Your task to perform on an android device: turn off data saver in the chrome app Image 0: 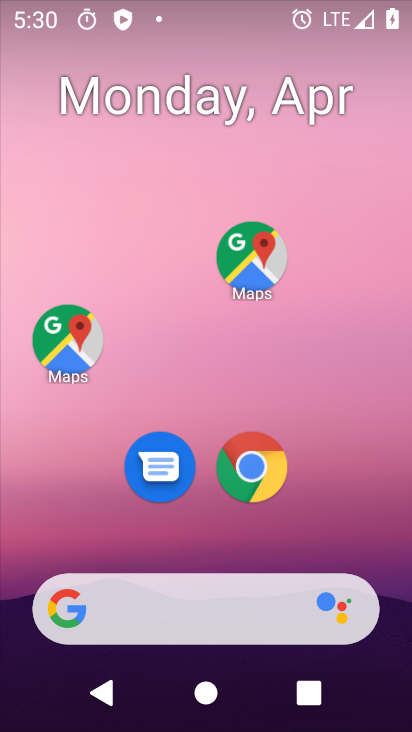
Step 0: drag from (249, 601) to (331, 9)
Your task to perform on an android device: turn off data saver in the chrome app Image 1: 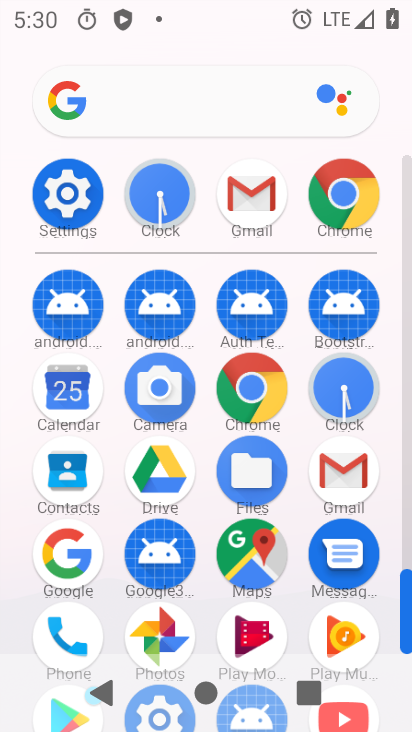
Step 1: click (252, 370)
Your task to perform on an android device: turn off data saver in the chrome app Image 2: 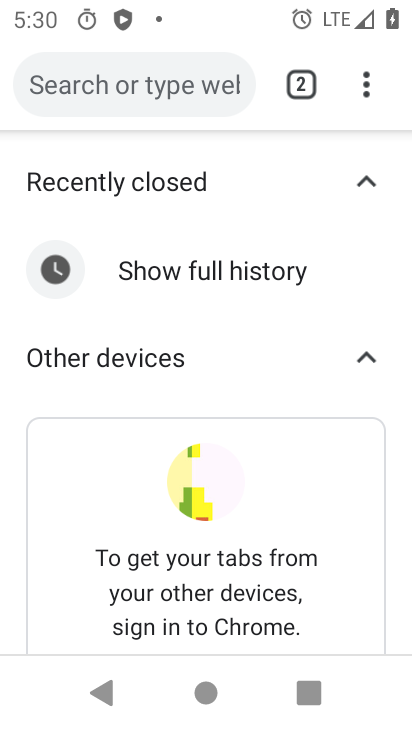
Step 2: drag from (362, 76) to (230, 516)
Your task to perform on an android device: turn off data saver in the chrome app Image 3: 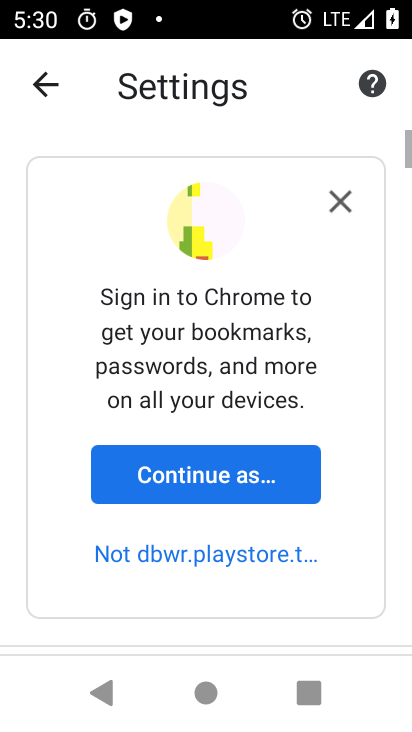
Step 3: drag from (212, 623) to (249, 45)
Your task to perform on an android device: turn off data saver in the chrome app Image 4: 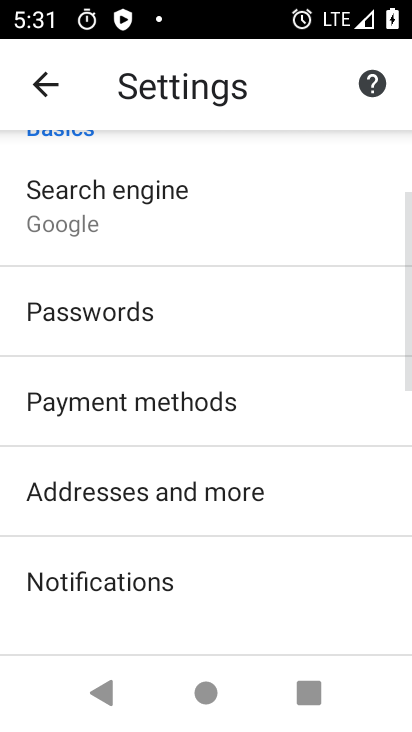
Step 4: drag from (286, 575) to (306, 109)
Your task to perform on an android device: turn off data saver in the chrome app Image 5: 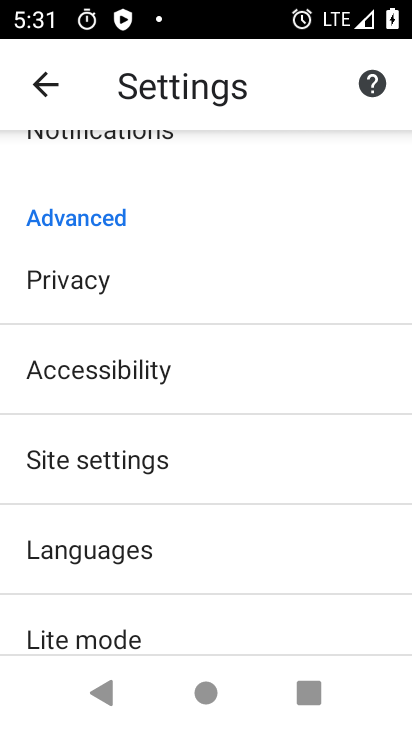
Step 5: click (161, 627)
Your task to perform on an android device: turn off data saver in the chrome app Image 6: 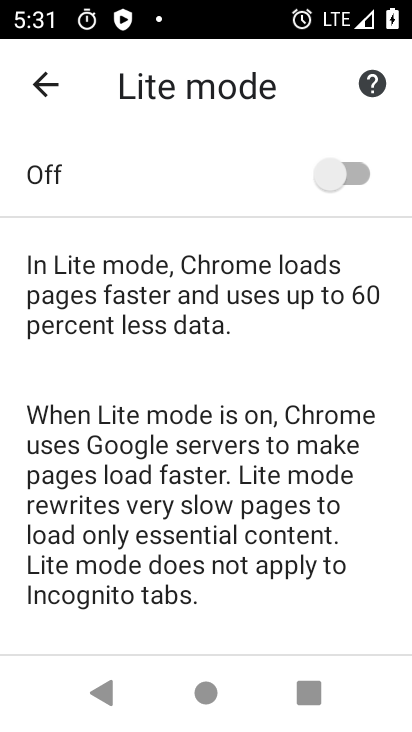
Step 6: task complete